Your task to perform on an android device: Open internet settings Image 0: 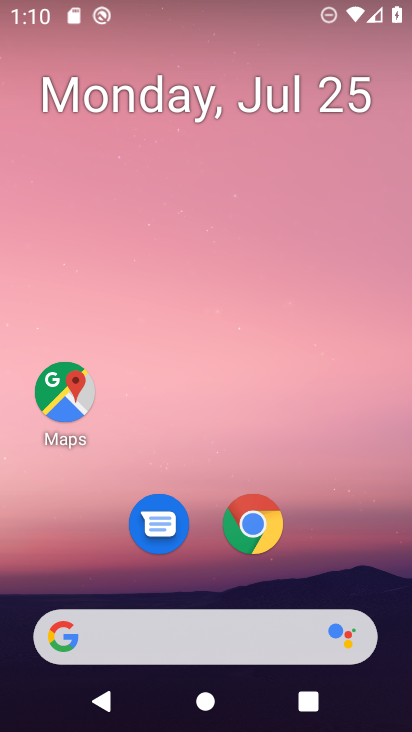
Step 0: press home button
Your task to perform on an android device: Open internet settings Image 1: 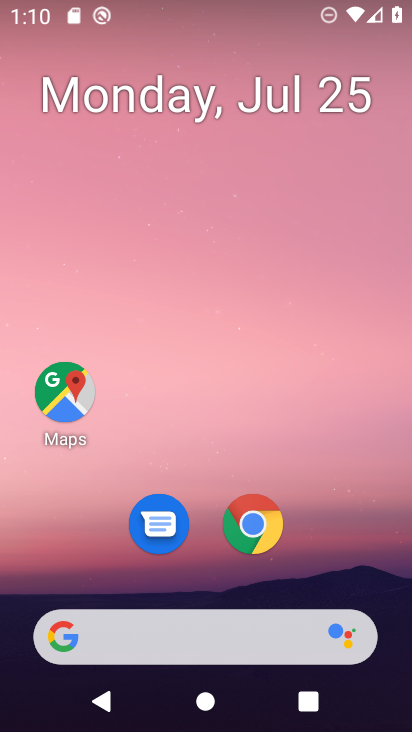
Step 1: drag from (294, 231) to (299, 2)
Your task to perform on an android device: Open internet settings Image 2: 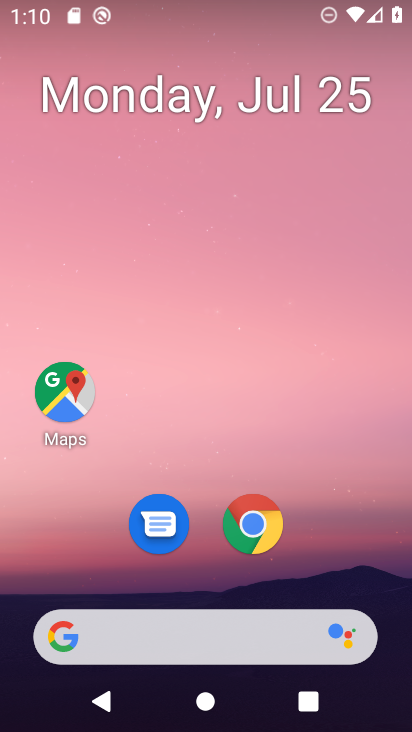
Step 2: drag from (215, 628) to (316, 235)
Your task to perform on an android device: Open internet settings Image 3: 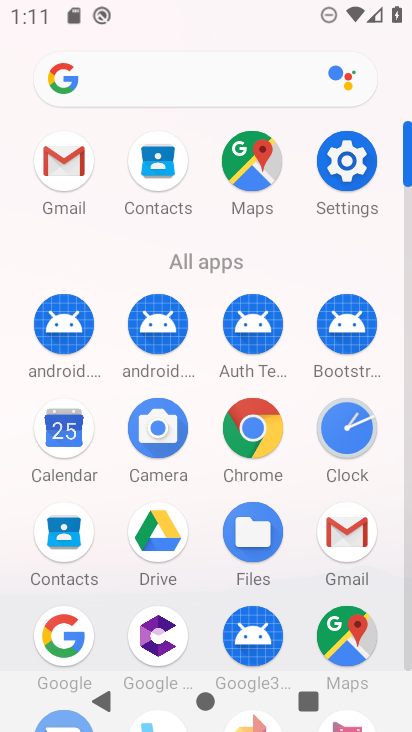
Step 3: click (344, 159)
Your task to perform on an android device: Open internet settings Image 4: 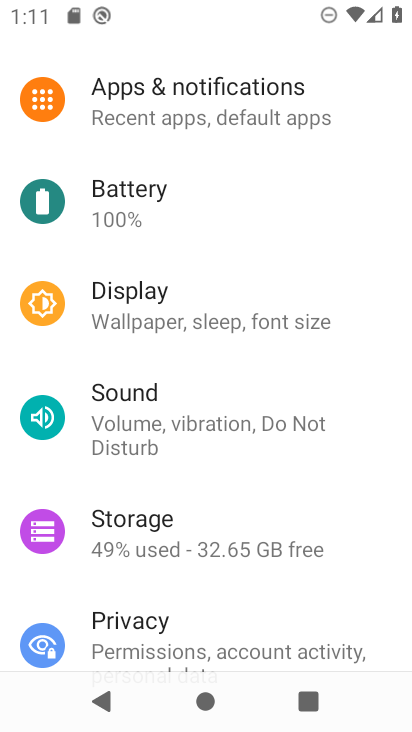
Step 4: task complete